Your task to perform on an android device: What's on my calendar today? Image 0: 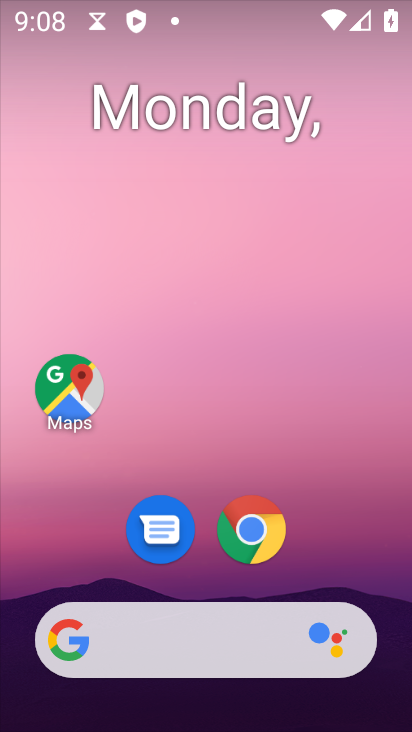
Step 0: drag from (275, 725) to (174, 368)
Your task to perform on an android device: What's on my calendar today? Image 1: 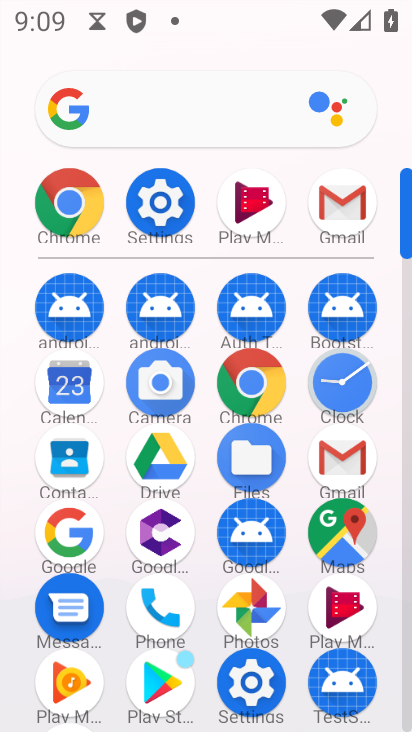
Step 1: click (76, 392)
Your task to perform on an android device: What's on my calendar today? Image 2: 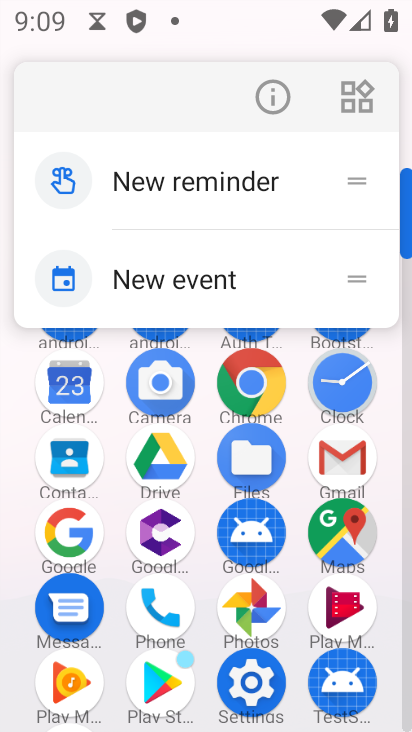
Step 2: click (68, 386)
Your task to perform on an android device: What's on my calendar today? Image 3: 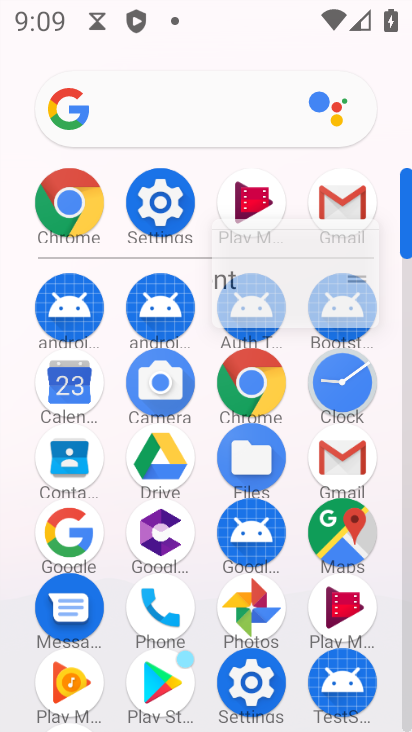
Step 3: click (68, 386)
Your task to perform on an android device: What's on my calendar today? Image 4: 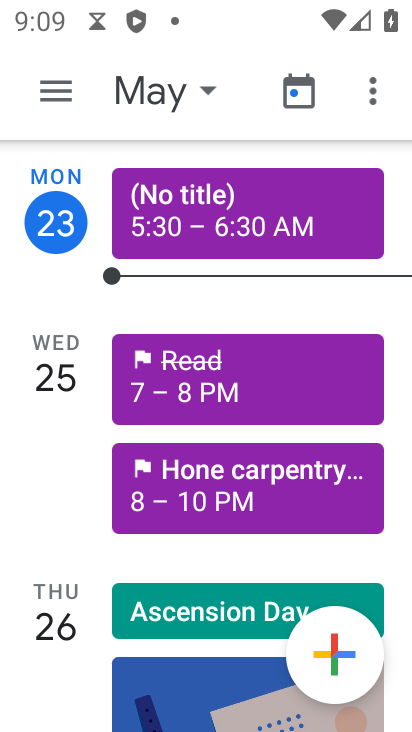
Step 4: drag from (232, 539) to (224, 224)
Your task to perform on an android device: What's on my calendar today? Image 5: 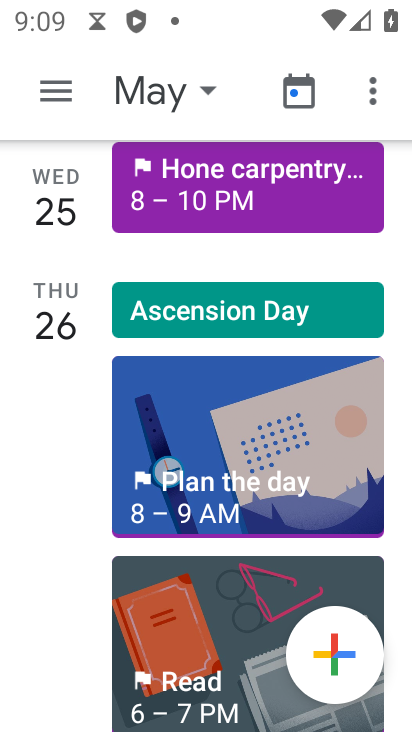
Step 5: drag from (229, 456) to (254, 69)
Your task to perform on an android device: What's on my calendar today? Image 6: 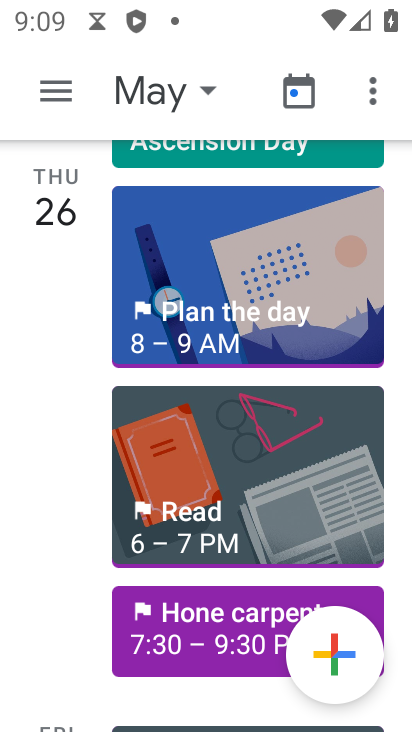
Step 6: drag from (222, 430) to (209, 108)
Your task to perform on an android device: What's on my calendar today? Image 7: 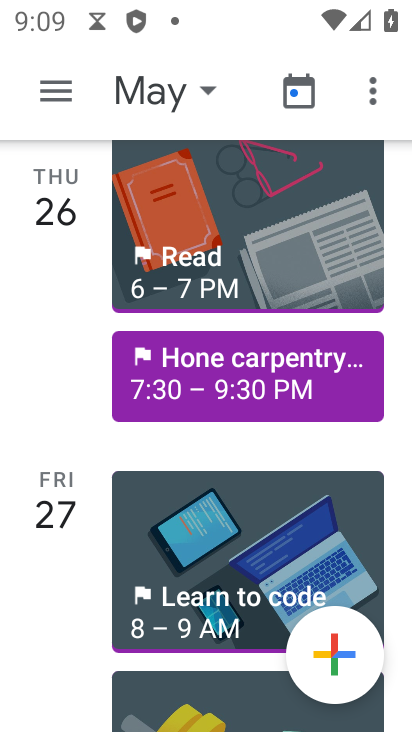
Step 7: drag from (184, 559) to (135, 110)
Your task to perform on an android device: What's on my calendar today? Image 8: 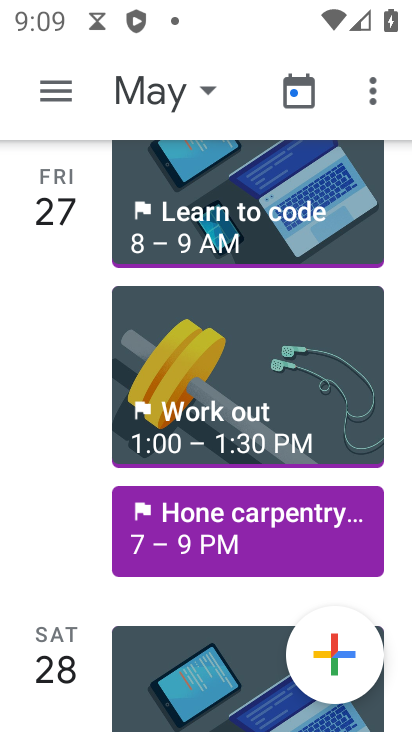
Step 8: drag from (178, 122) to (175, 80)
Your task to perform on an android device: What's on my calendar today? Image 9: 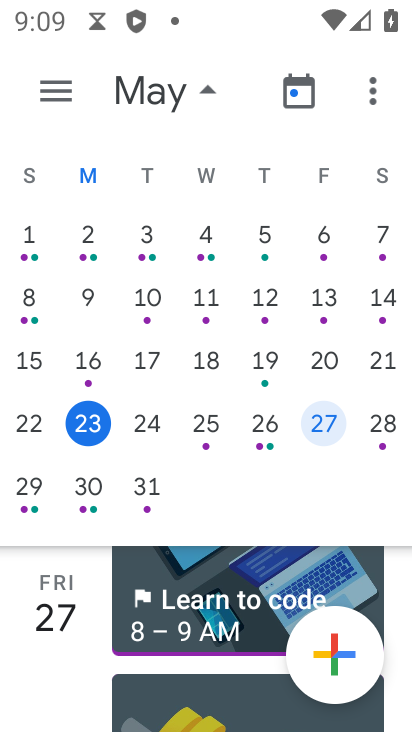
Step 9: click (152, 421)
Your task to perform on an android device: What's on my calendar today? Image 10: 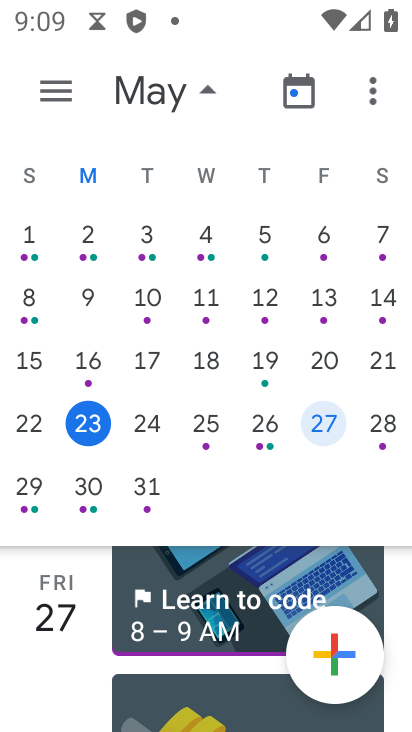
Step 10: click (152, 421)
Your task to perform on an android device: What's on my calendar today? Image 11: 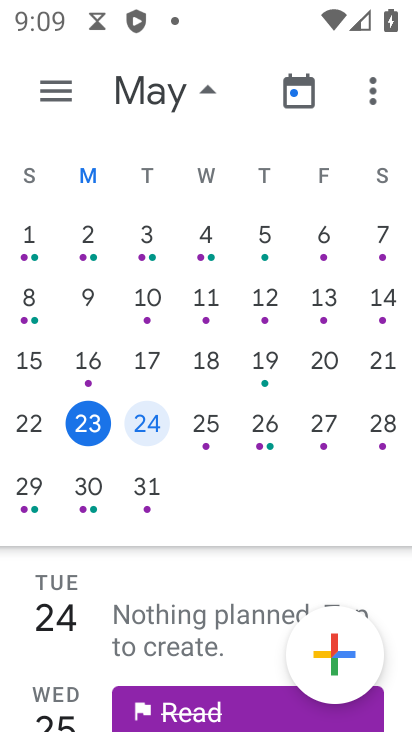
Step 11: click (152, 420)
Your task to perform on an android device: What's on my calendar today? Image 12: 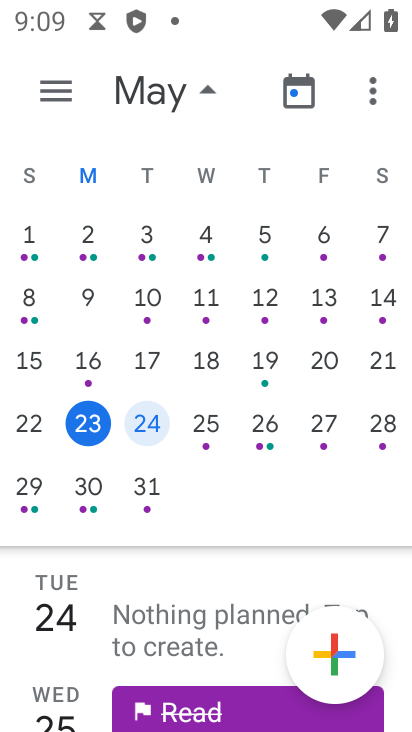
Step 12: click (210, 416)
Your task to perform on an android device: What's on my calendar today? Image 13: 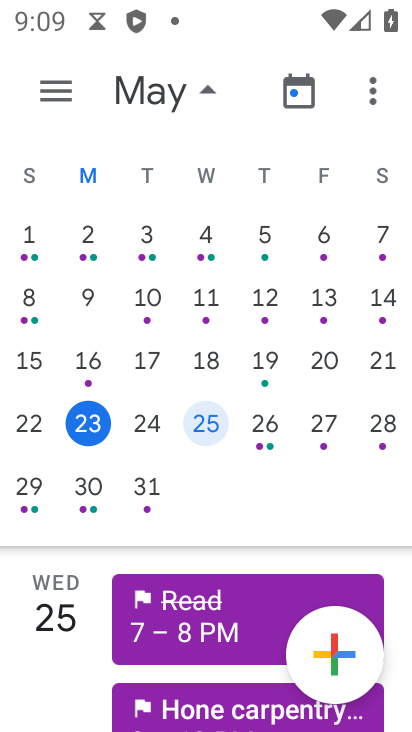
Step 13: click (210, 416)
Your task to perform on an android device: What's on my calendar today? Image 14: 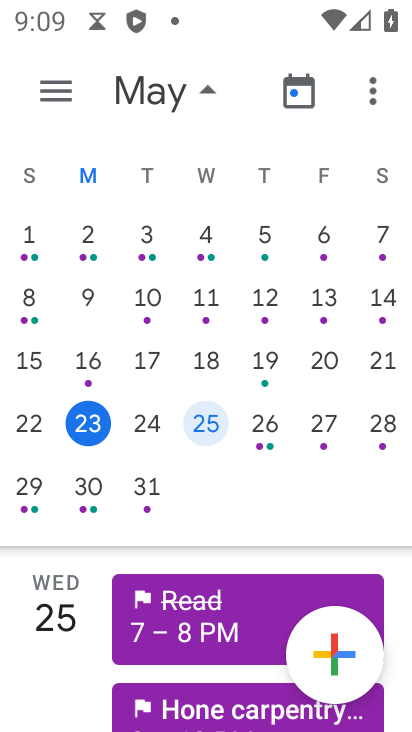
Step 14: task complete